Your task to perform on an android device: delete a single message in the gmail app Image 0: 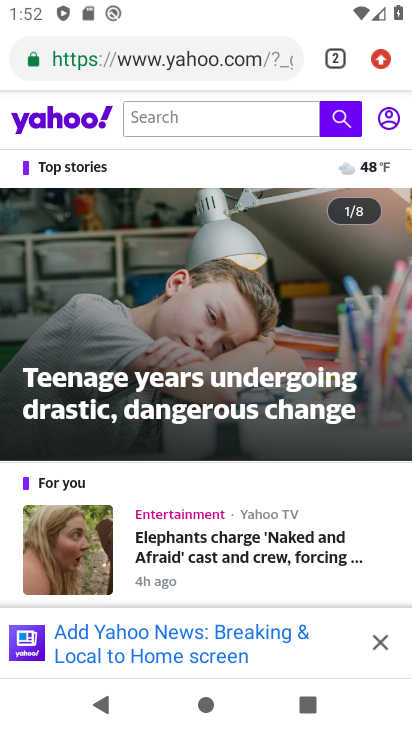
Step 0: press home button
Your task to perform on an android device: delete a single message in the gmail app Image 1: 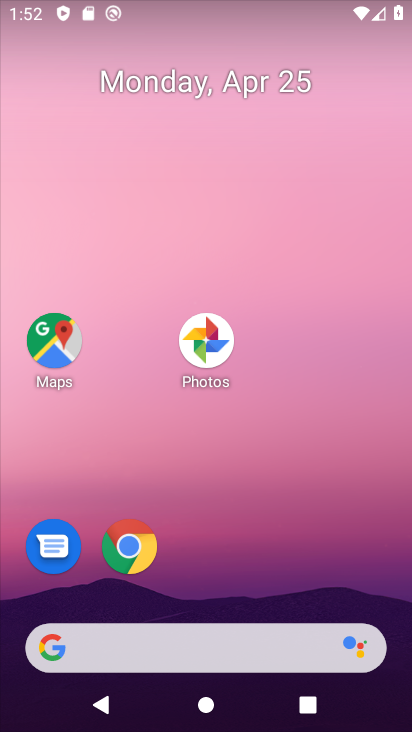
Step 1: drag from (243, 540) to (273, 194)
Your task to perform on an android device: delete a single message in the gmail app Image 2: 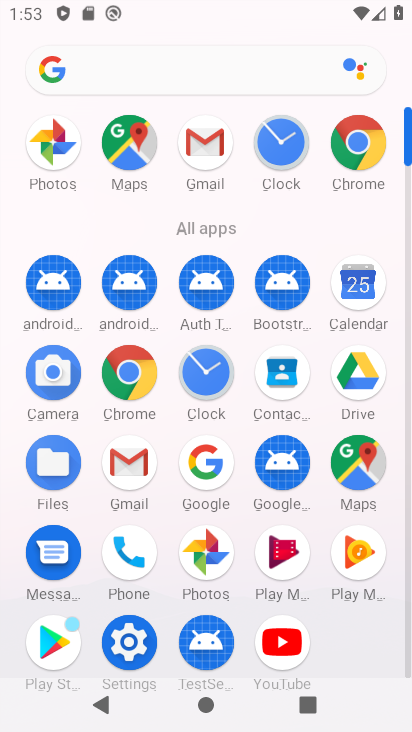
Step 2: click (135, 457)
Your task to perform on an android device: delete a single message in the gmail app Image 3: 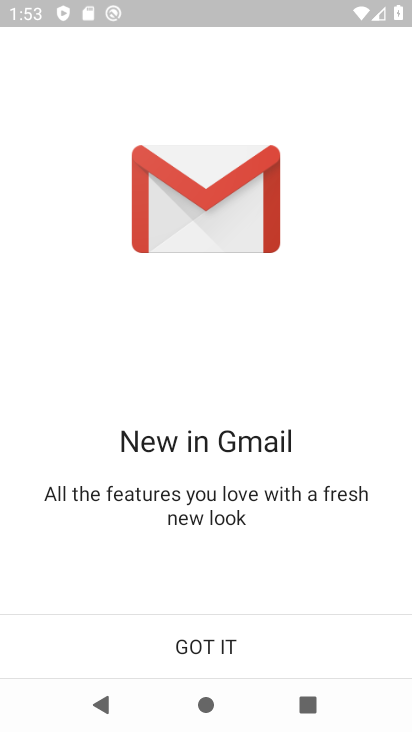
Step 3: click (197, 638)
Your task to perform on an android device: delete a single message in the gmail app Image 4: 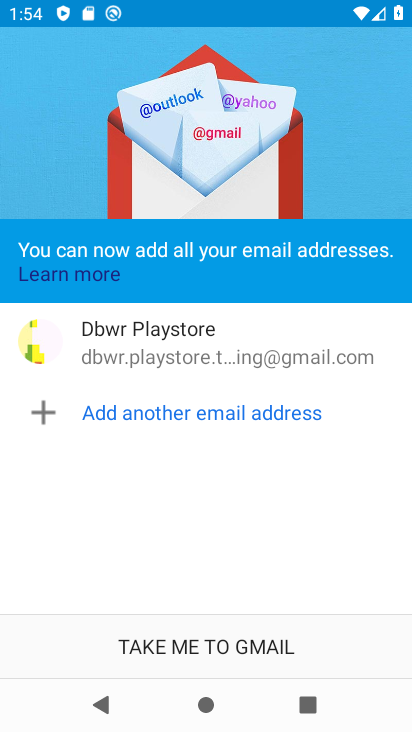
Step 4: click (198, 639)
Your task to perform on an android device: delete a single message in the gmail app Image 5: 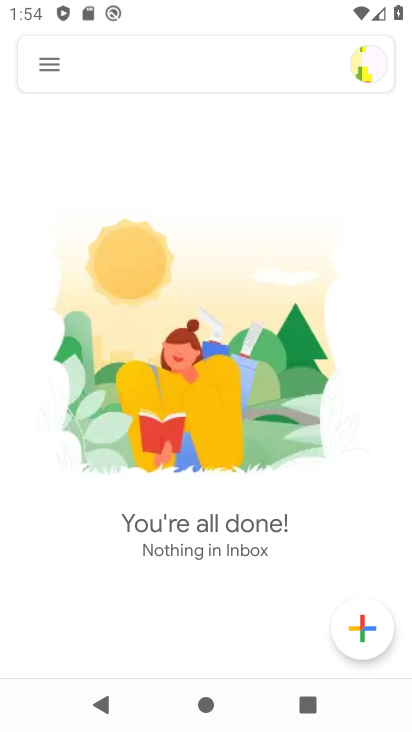
Step 5: click (42, 63)
Your task to perform on an android device: delete a single message in the gmail app Image 6: 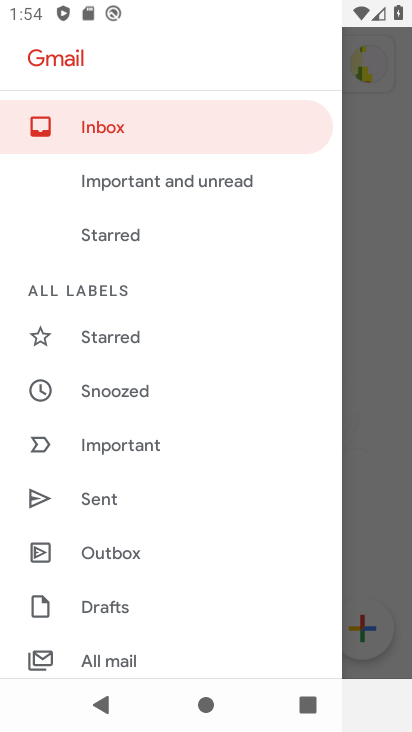
Step 6: click (133, 656)
Your task to perform on an android device: delete a single message in the gmail app Image 7: 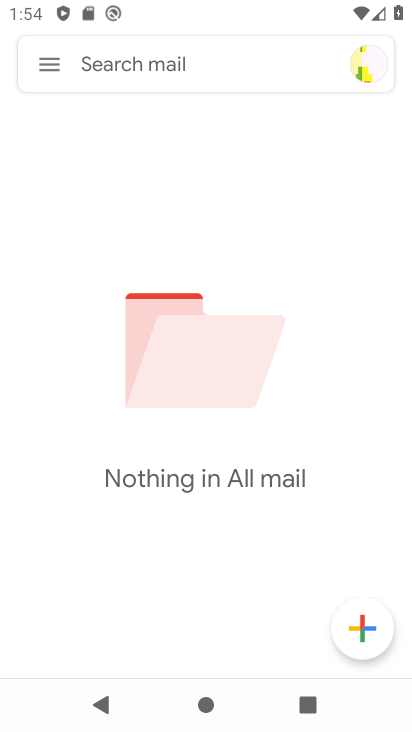
Step 7: task complete